Your task to perform on an android device: Open Google Chrome Image 0: 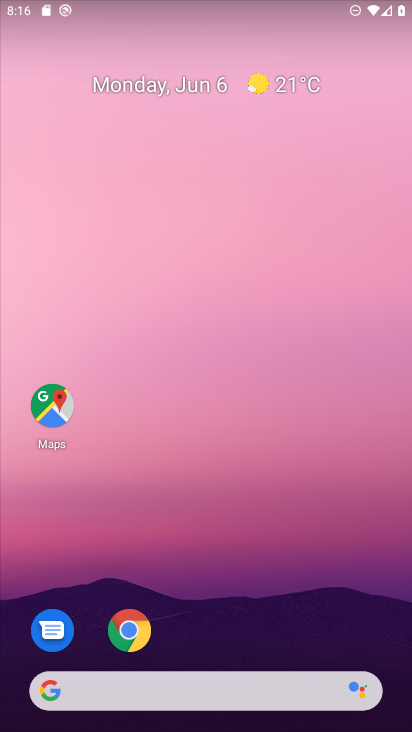
Step 0: click (132, 622)
Your task to perform on an android device: Open Google Chrome Image 1: 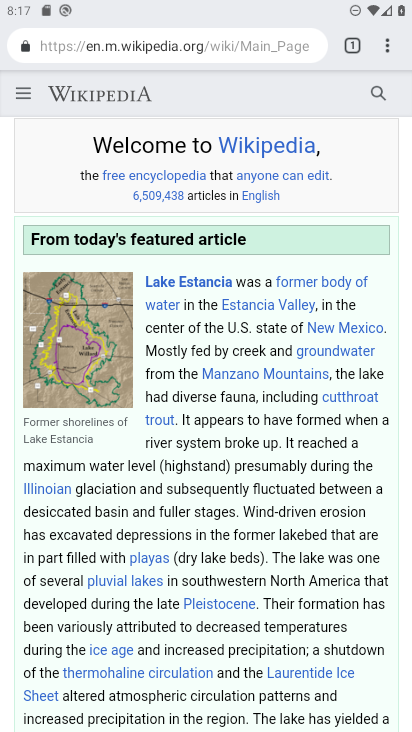
Step 1: task complete